Your task to perform on an android device: Open Yahoo.com Image 0: 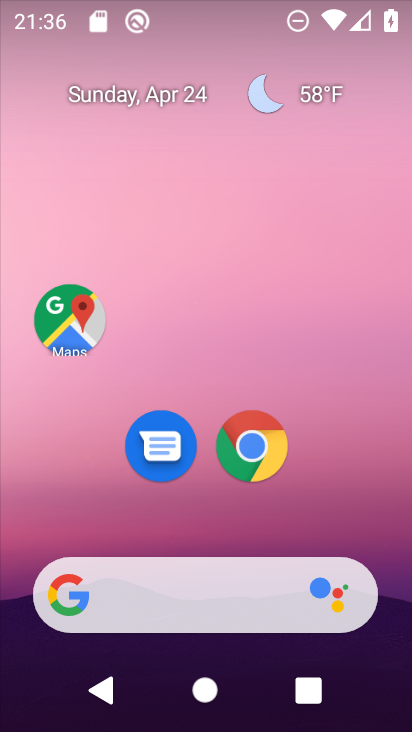
Step 0: drag from (197, 586) to (329, 45)
Your task to perform on an android device: Open Yahoo.com Image 1: 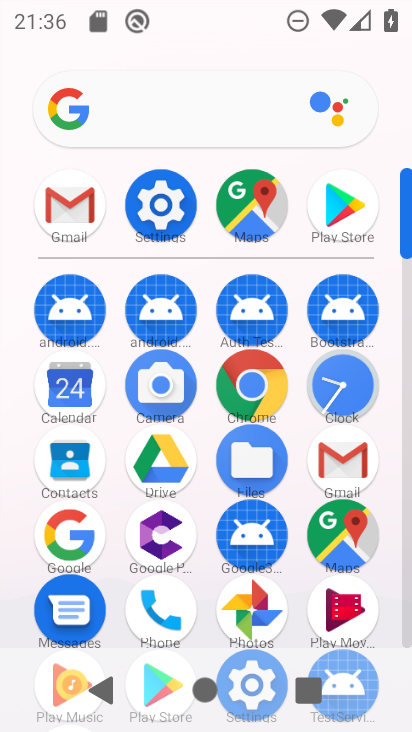
Step 1: click (255, 393)
Your task to perform on an android device: Open Yahoo.com Image 2: 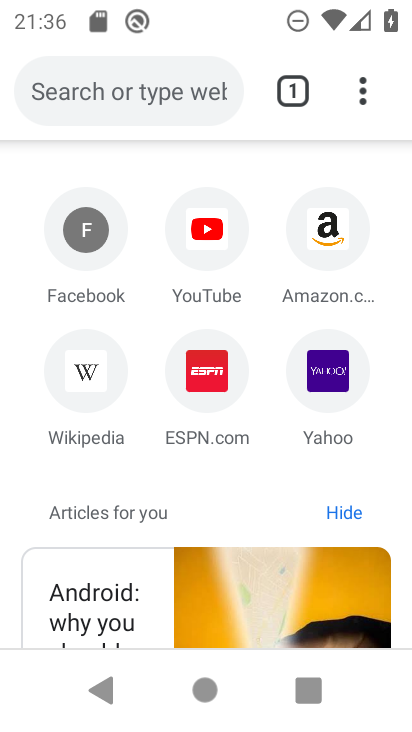
Step 2: click (332, 375)
Your task to perform on an android device: Open Yahoo.com Image 3: 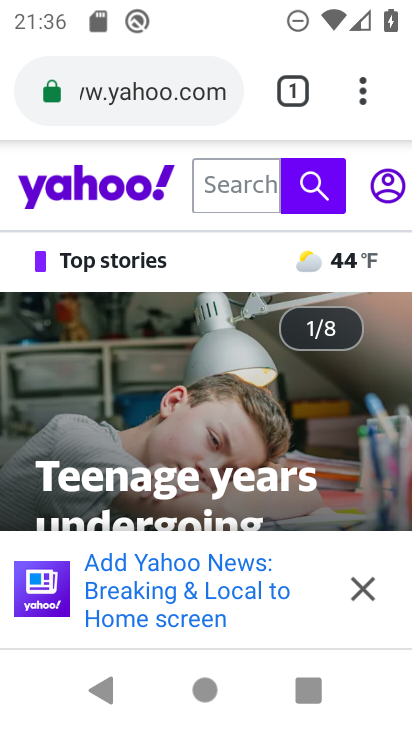
Step 3: task complete